Your task to perform on an android device: Search for Italian restaurants on Maps Image 0: 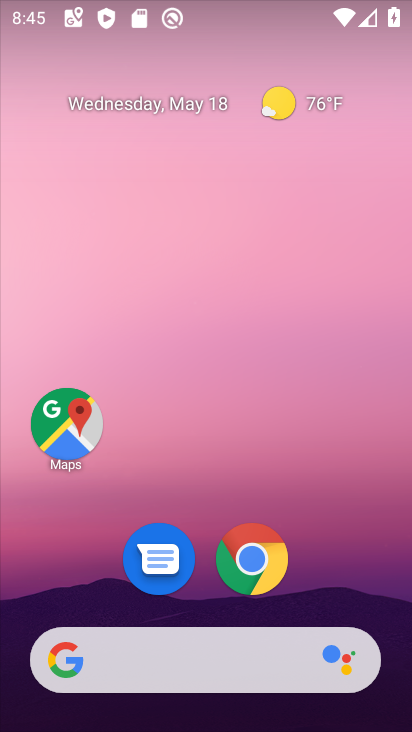
Step 0: click (73, 429)
Your task to perform on an android device: Search for Italian restaurants on Maps Image 1: 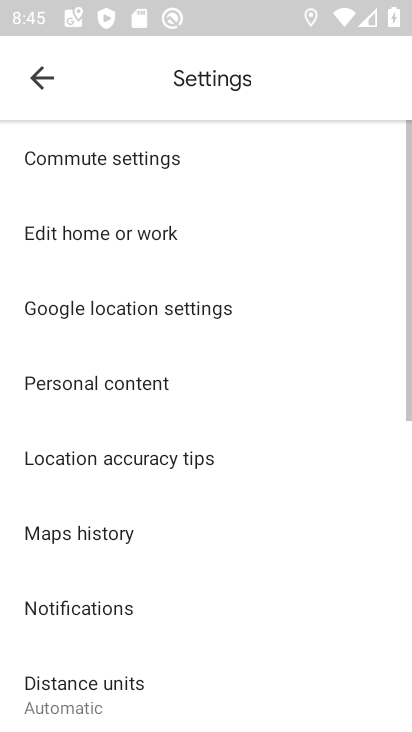
Step 1: press back button
Your task to perform on an android device: Search for Italian restaurants on Maps Image 2: 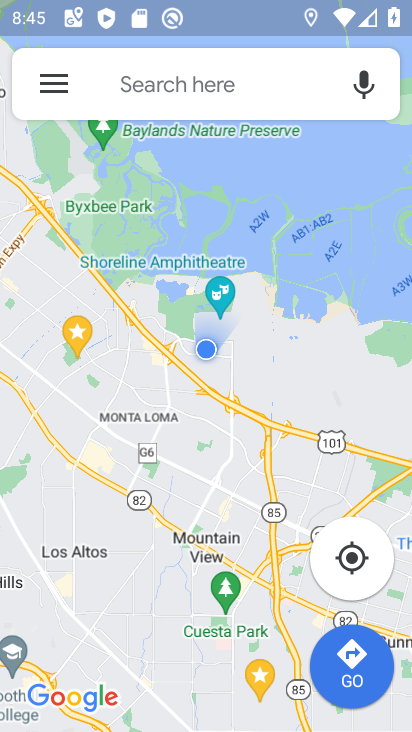
Step 2: click (241, 77)
Your task to perform on an android device: Search for Italian restaurants on Maps Image 3: 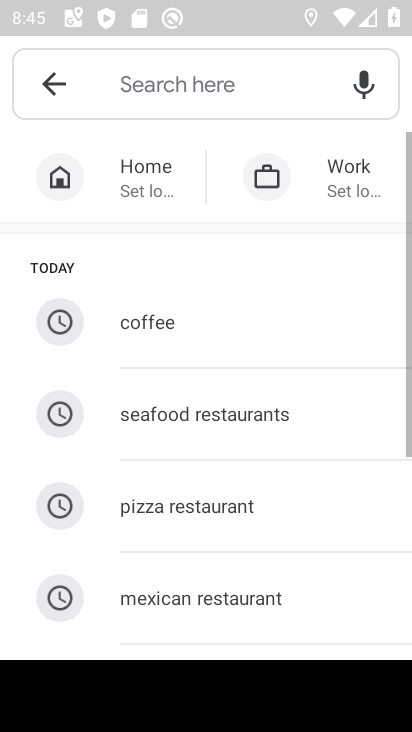
Step 3: drag from (203, 593) to (155, 284)
Your task to perform on an android device: Search for Italian restaurants on Maps Image 4: 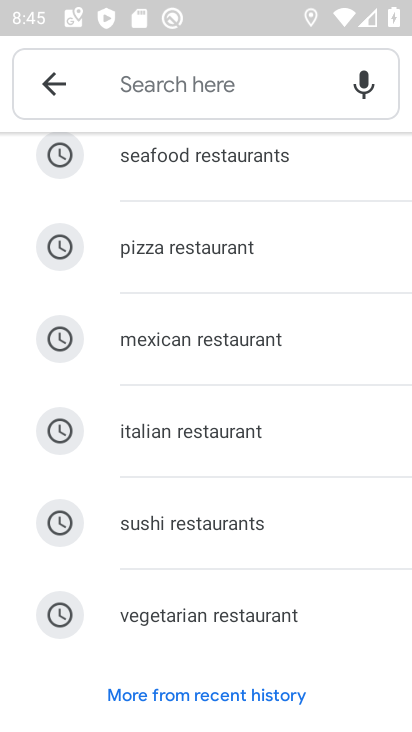
Step 4: click (193, 430)
Your task to perform on an android device: Search for Italian restaurants on Maps Image 5: 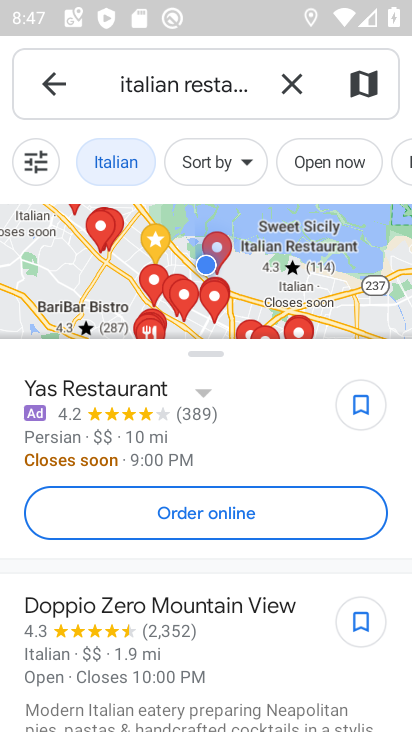
Step 5: task complete